Your task to perform on an android device: Open Google Chrome and click the shortcut for Amazon.com Image 0: 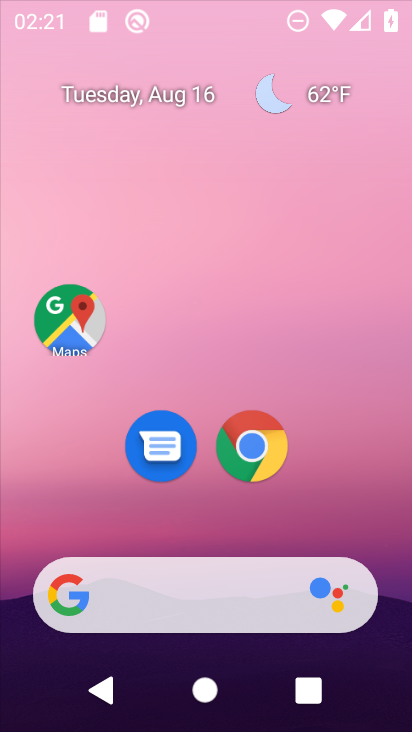
Step 0: press home button
Your task to perform on an android device: Open Google Chrome and click the shortcut for Amazon.com Image 1: 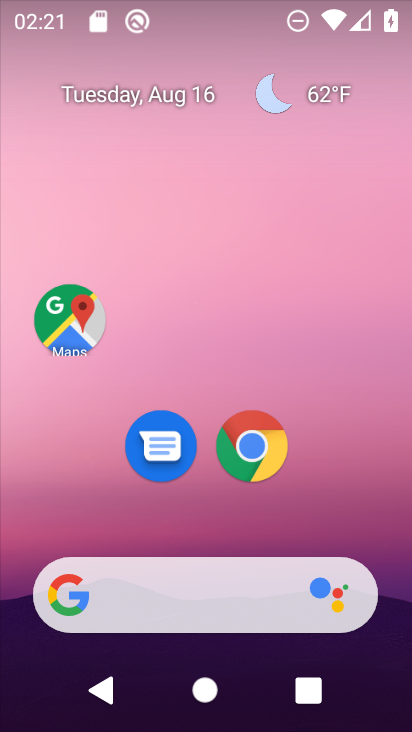
Step 1: drag from (204, 532) to (216, 57)
Your task to perform on an android device: Open Google Chrome and click the shortcut for Amazon.com Image 2: 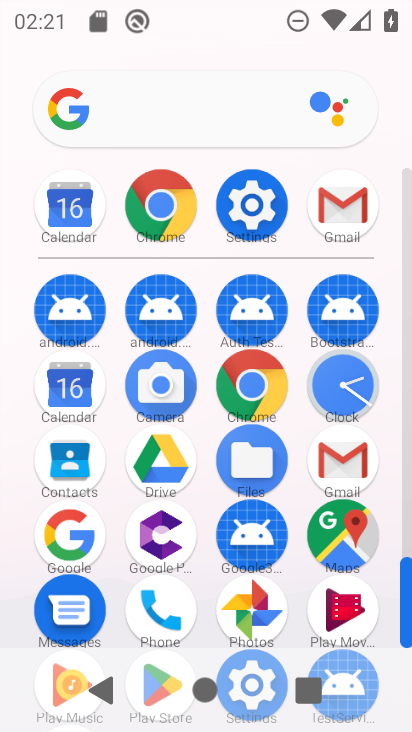
Step 2: click (159, 198)
Your task to perform on an android device: Open Google Chrome and click the shortcut for Amazon.com Image 3: 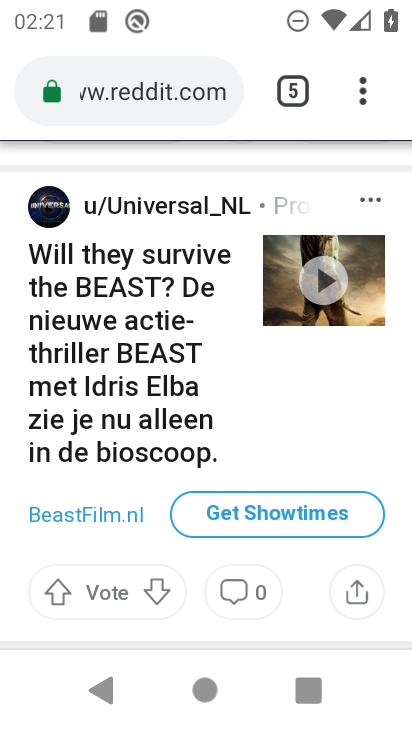
Step 3: click (298, 90)
Your task to perform on an android device: Open Google Chrome and click the shortcut for Amazon.com Image 4: 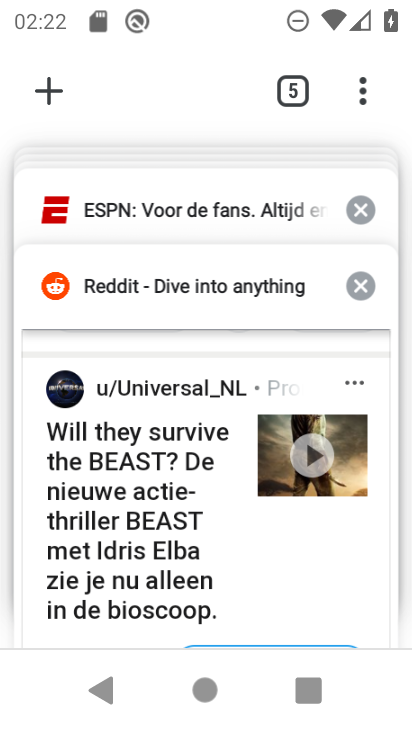
Step 4: click (52, 92)
Your task to perform on an android device: Open Google Chrome and click the shortcut for Amazon.com Image 5: 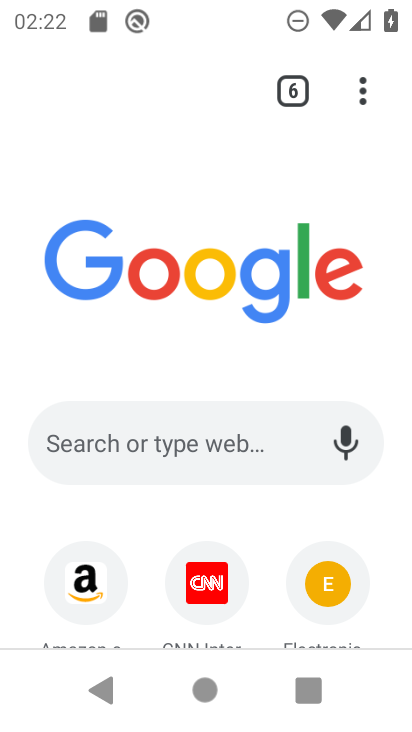
Step 5: click (81, 571)
Your task to perform on an android device: Open Google Chrome and click the shortcut for Amazon.com Image 6: 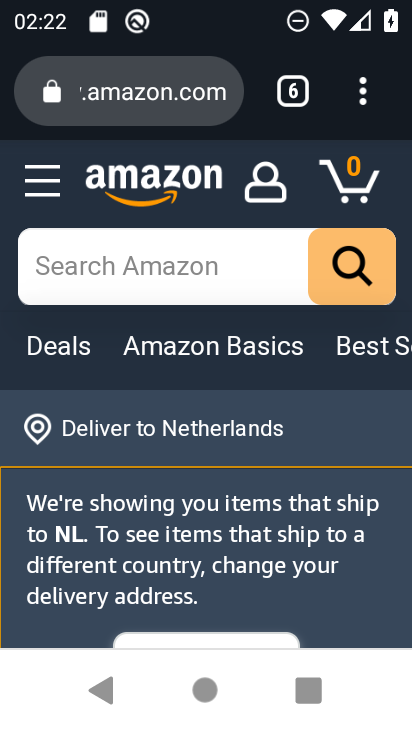
Step 6: task complete